Your task to perform on an android device: Do I have any events tomorrow? Image 0: 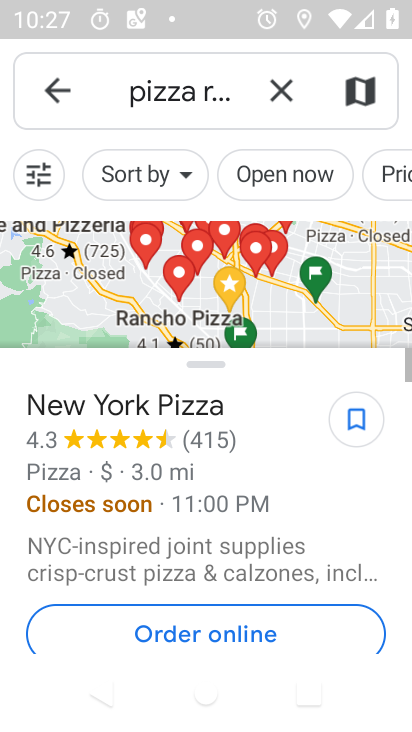
Step 0: press home button
Your task to perform on an android device: Do I have any events tomorrow? Image 1: 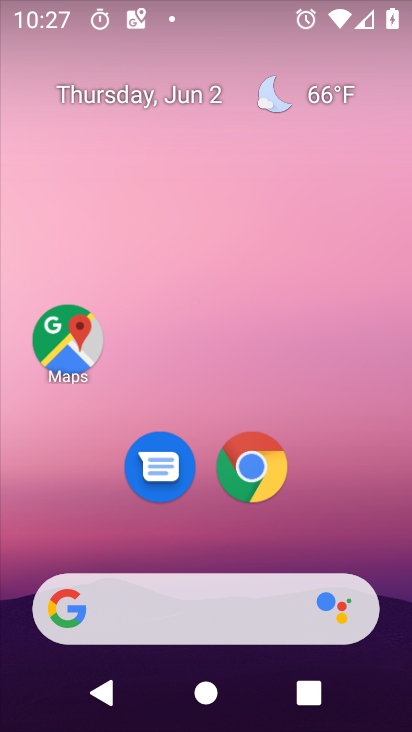
Step 1: drag from (6, 586) to (292, 152)
Your task to perform on an android device: Do I have any events tomorrow? Image 2: 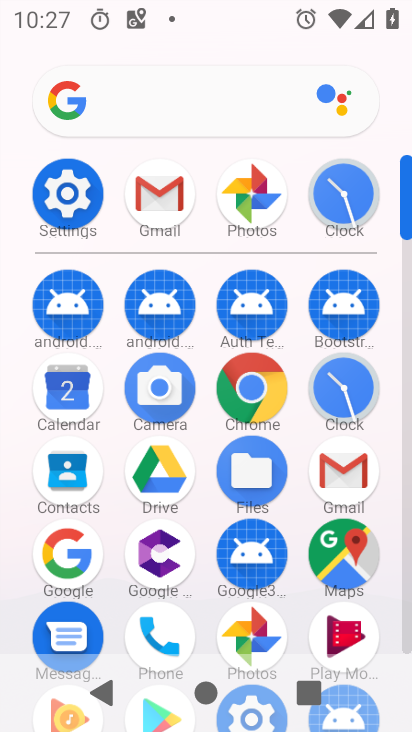
Step 2: click (67, 379)
Your task to perform on an android device: Do I have any events tomorrow? Image 3: 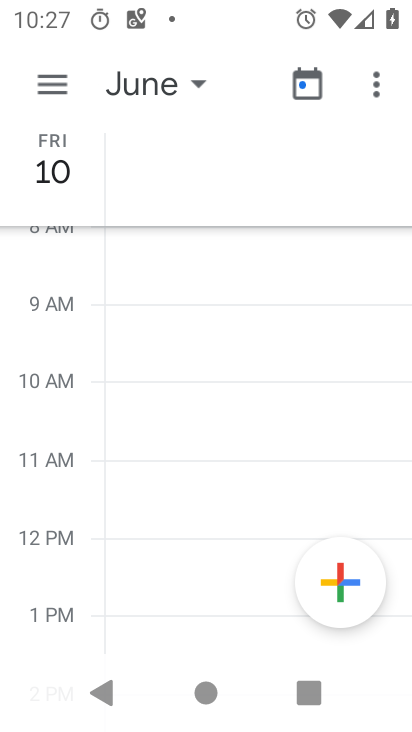
Step 3: click (176, 83)
Your task to perform on an android device: Do I have any events tomorrow? Image 4: 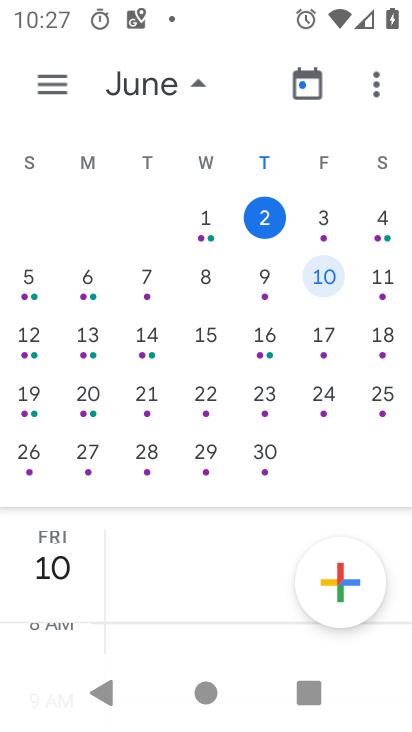
Step 4: click (261, 224)
Your task to perform on an android device: Do I have any events tomorrow? Image 5: 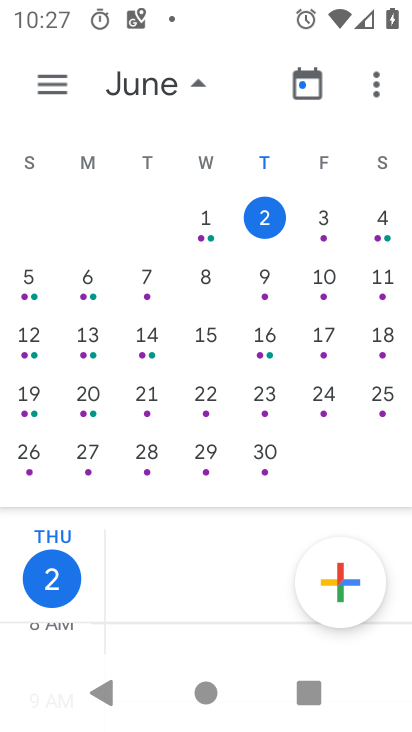
Step 5: click (316, 221)
Your task to perform on an android device: Do I have any events tomorrow? Image 6: 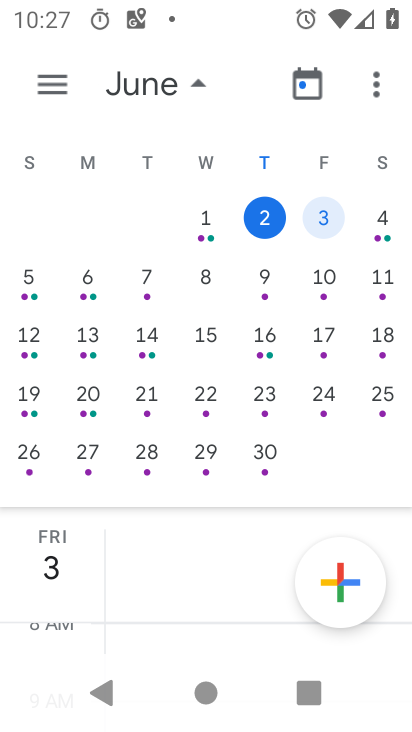
Step 6: task complete